Your task to perform on an android device: Go to battery settings Image 0: 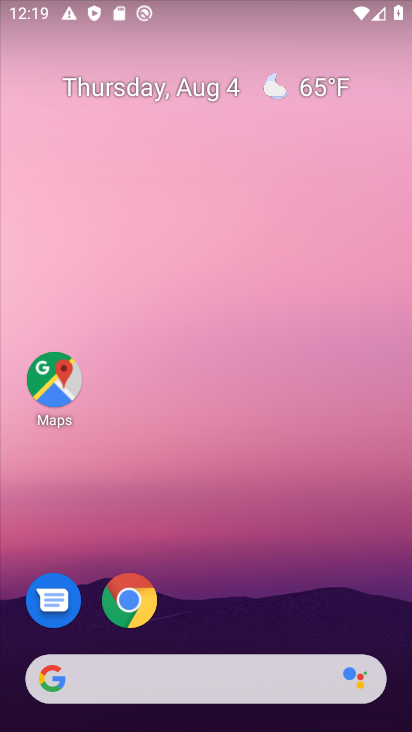
Step 0: drag from (239, 617) to (140, 128)
Your task to perform on an android device: Go to battery settings Image 1: 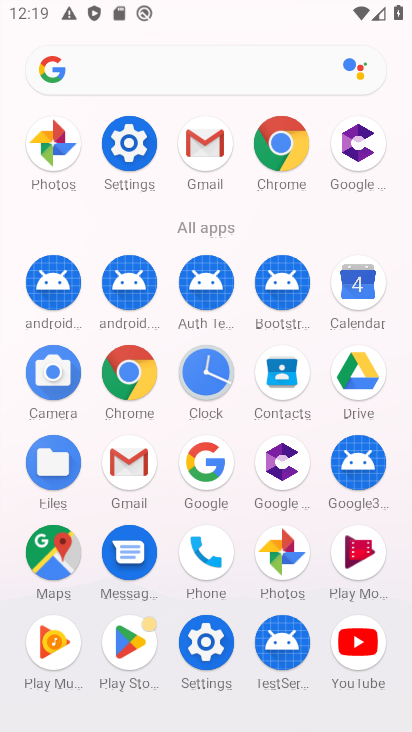
Step 1: click (191, 641)
Your task to perform on an android device: Go to battery settings Image 2: 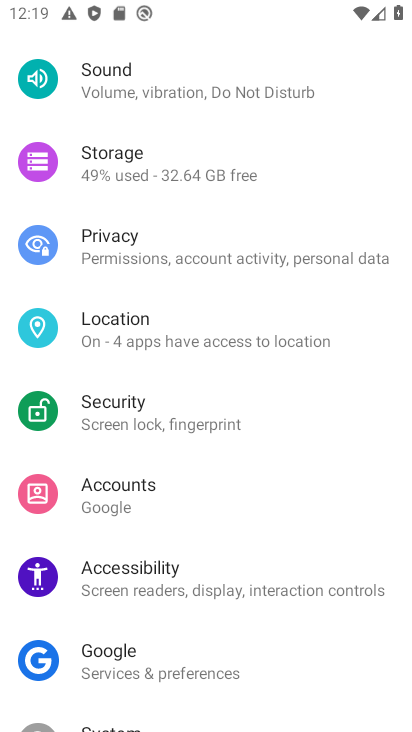
Step 2: drag from (183, 99) to (175, 328)
Your task to perform on an android device: Go to battery settings Image 3: 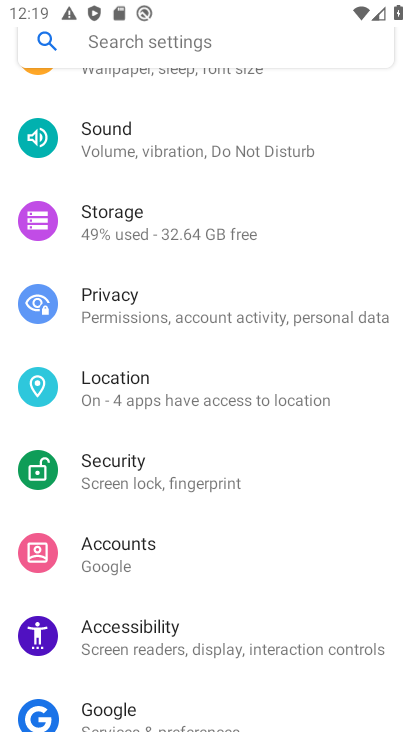
Step 3: drag from (214, 143) to (150, 561)
Your task to perform on an android device: Go to battery settings Image 4: 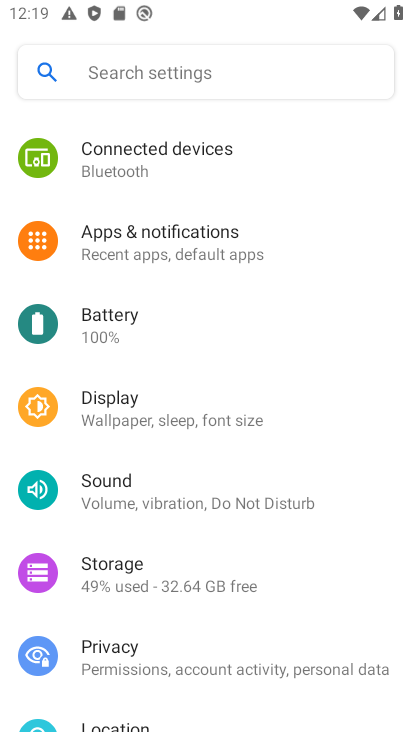
Step 4: click (100, 328)
Your task to perform on an android device: Go to battery settings Image 5: 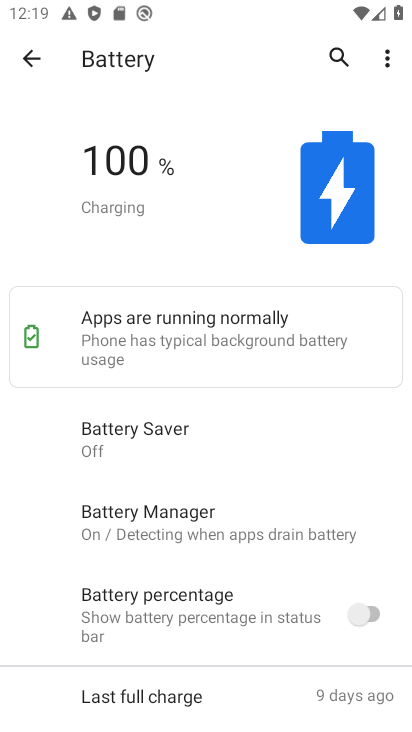
Step 5: task complete